Your task to perform on an android device: Open privacy settings Image 0: 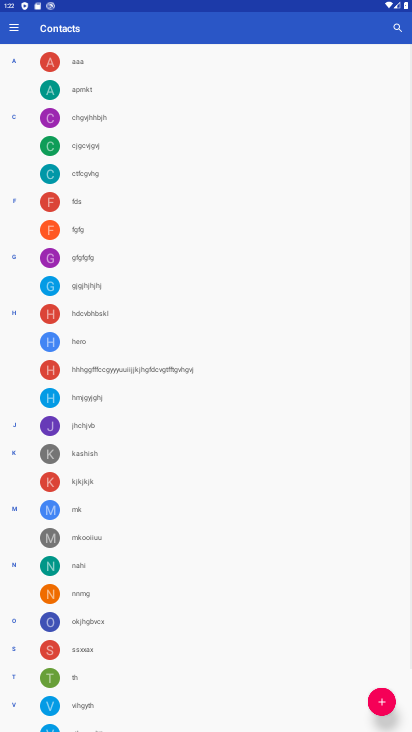
Step 0: press home button
Your task to perform on an android device: Open privacy settings Image 1: 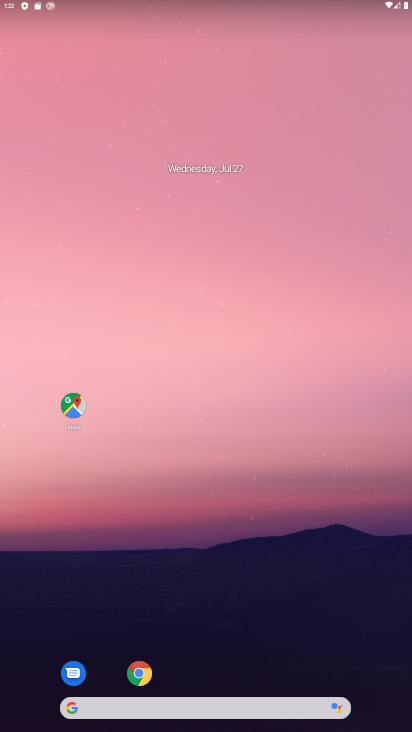
Step 1: drag from (238, 644) to (231, 34)
Your task to perform on an android device: Open privacy settings Image 2: 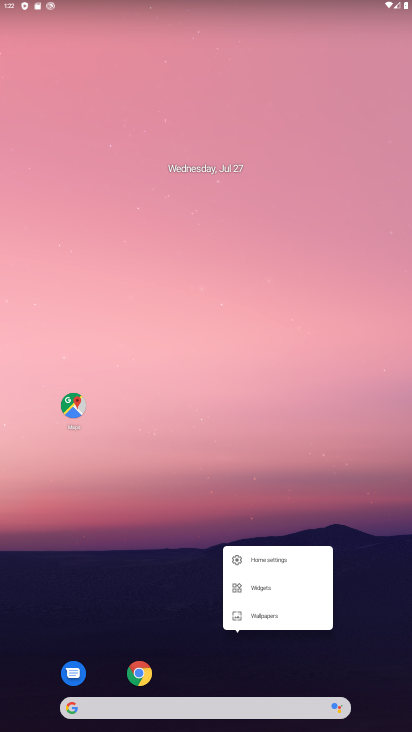
Step 2: click (236, 344)
Your task to perform on an android device: Open privacy settings Image 3: 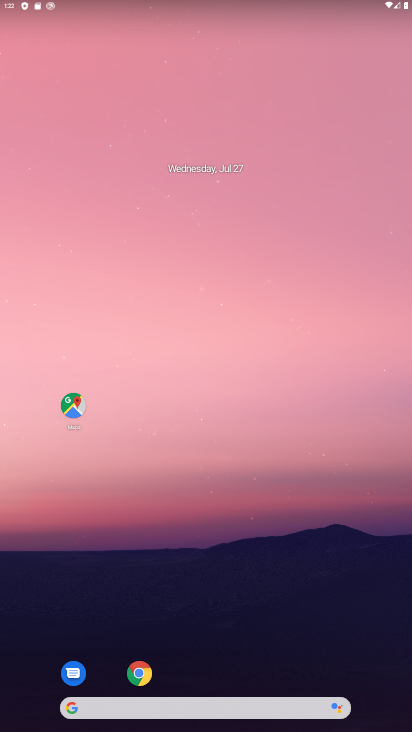
Step 3: drag from (215, 668) to (250, 99)
Your task to perform on an android device: Open privacy settings Image 4: 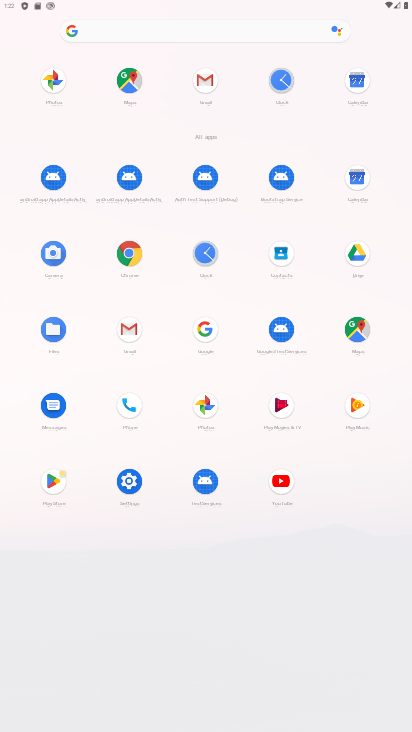
Step 4: click (127, 481)
Your task to perform on an android device: Open privacy settings Image 5: 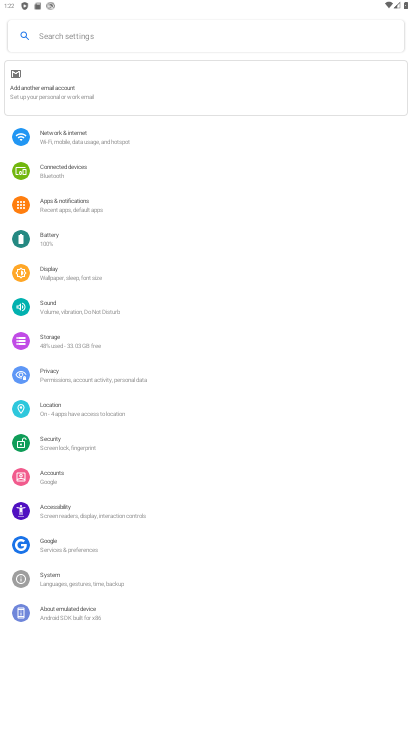
Step 5: click (44, 372)
Your task to perform on an android device: Open privacy settings Image 6: 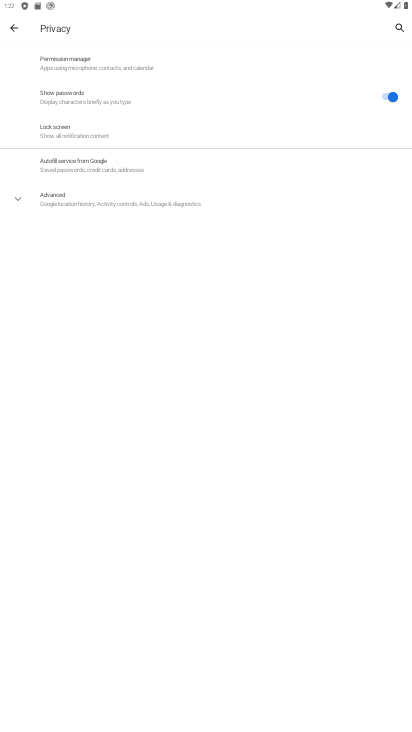
Step 6: task complete